Your task to perform on an android device: Search for Italian restaurants on Maps Image 0: 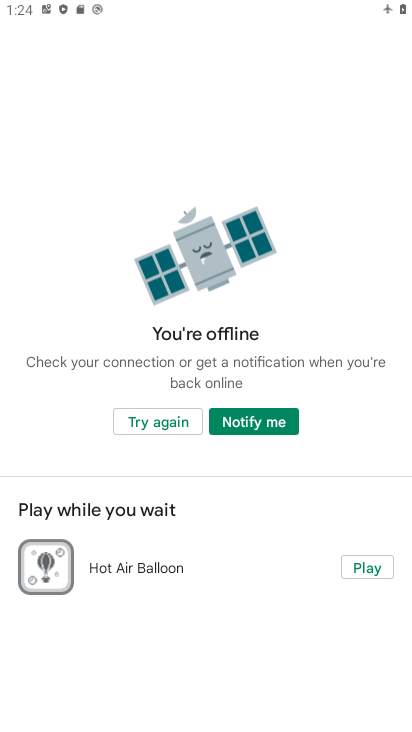
Step 0: press home button
Your task to perform on an android device: Search for Italian restaurants on Maps Image 1: 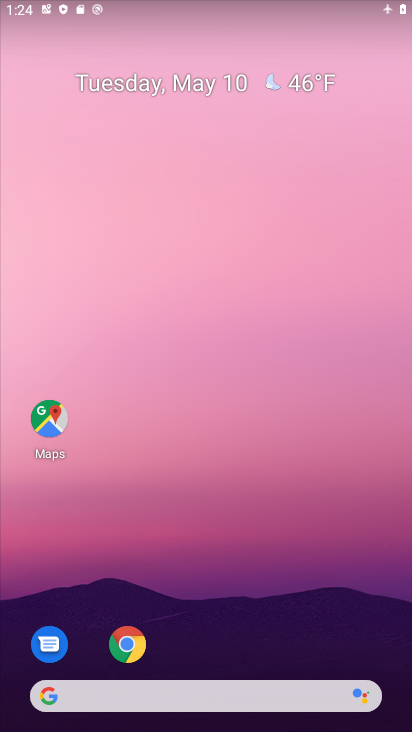
Step 1: drag from (218, 621) to (173, 283)
Your task to perform on an android device: Search for Italian restaurants on Maps Image 2: 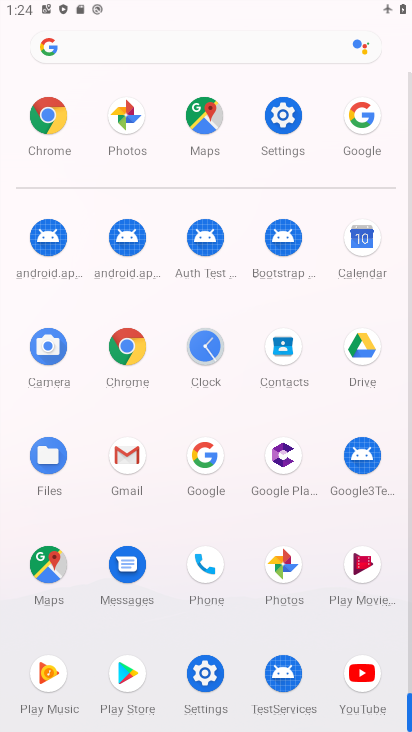
Step 2: click (51, 579)
Your task to perform on an android device: Search for Italian restaurants on Maps Image 3: 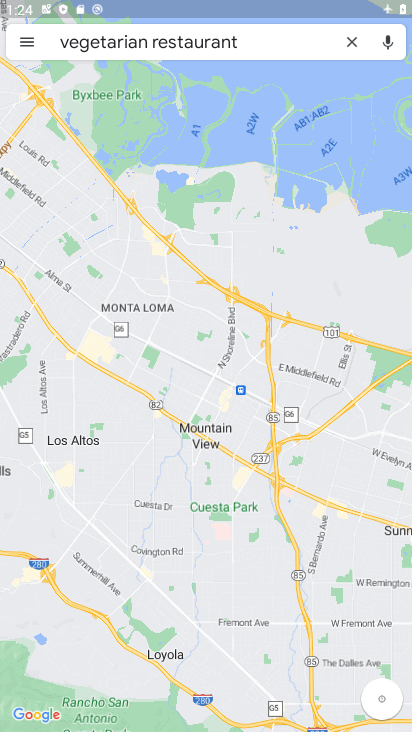
Step 3: click (360, 41)
Your task to perform on an android device: Search for Italian restaurants on Maps Image 4: 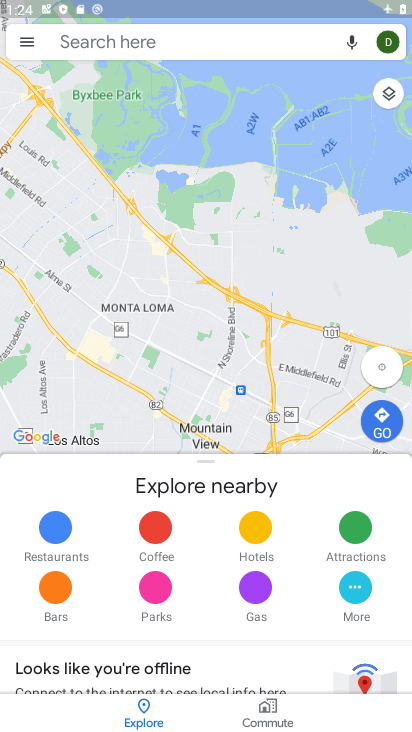
Step 4: click (191, 52)
Your task to perform on an android device: Search for Italian restaurants on Maps Image 5: 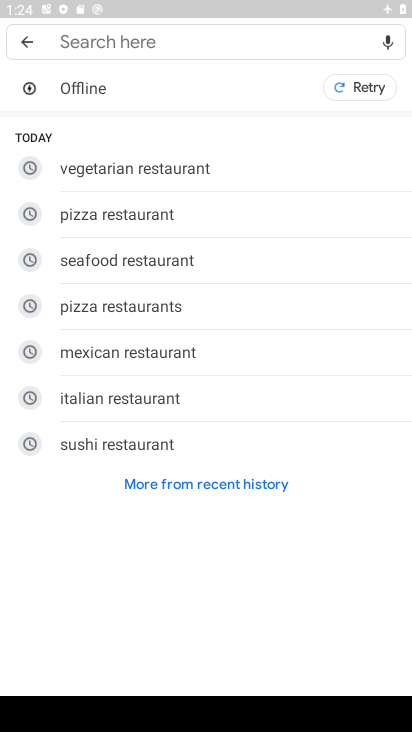
Step 5: click (162, 406)
Your task to perform on an android device: Search for Italian restaurants on Maps Image 6: 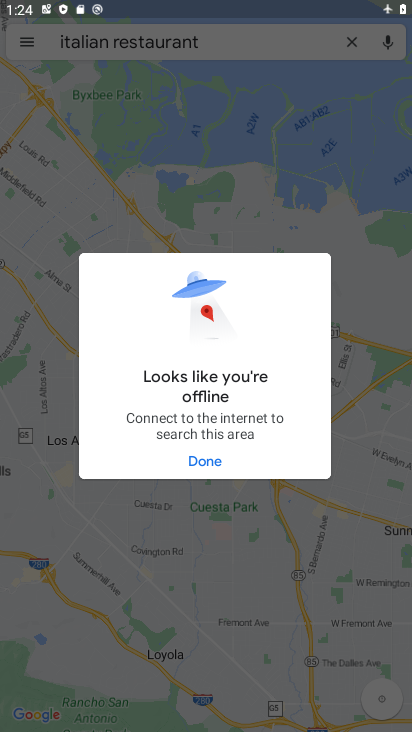
Step 6: task complete